Your task to perform on an android device: Open Google Maps and go to "Timeline" Image 0: 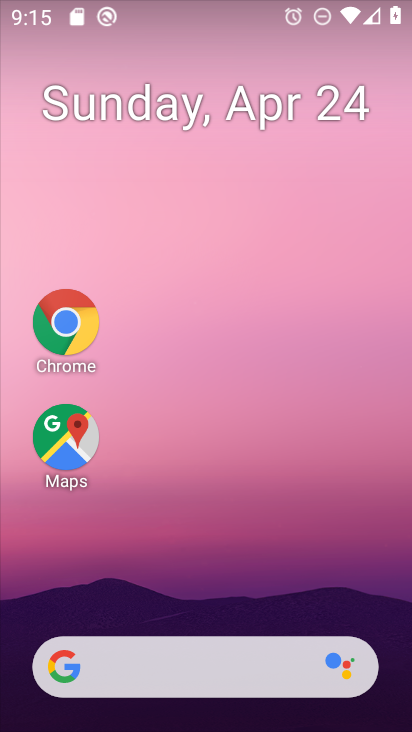
Step 0: click (66, 432)
Your task to perform on an android device: Open Google Maps and go to "Timeline" Image 1: 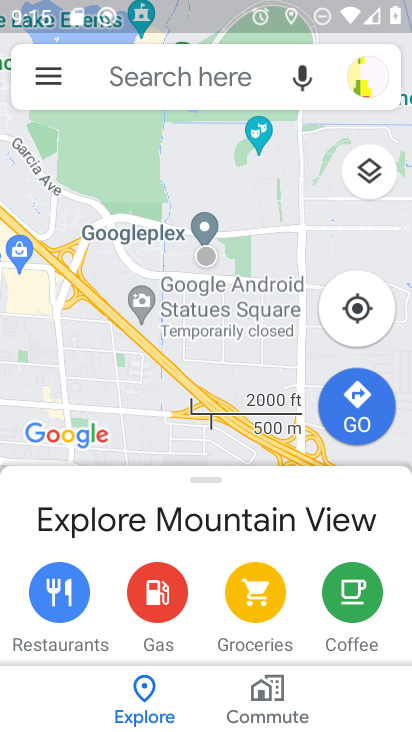
Step 1: click (45, 69)
Your task to perform on an android device: Open Google Maps and go to "Timeline" Image 2: 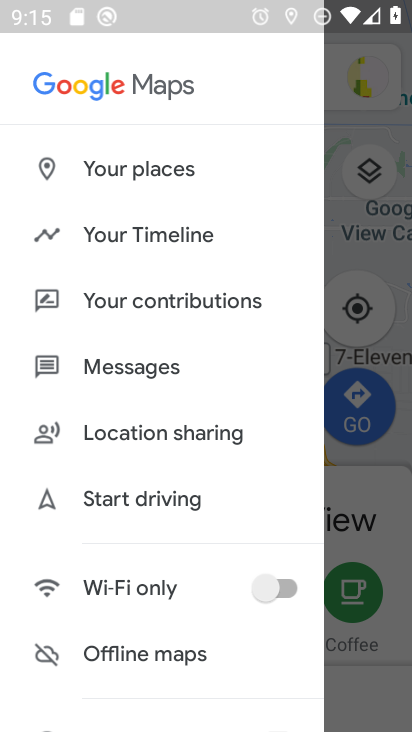
Step 2: click (126, 236)
Your task to perform on an android device: Open Google Maps and go to "Timeline" Image 3: 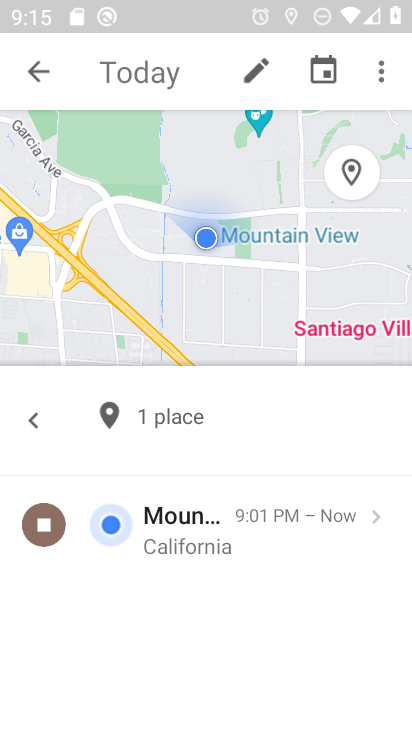
Step 3: task complete